Your task to perform on an android device: open the mobile data screen to see how much data has been used Image 0: 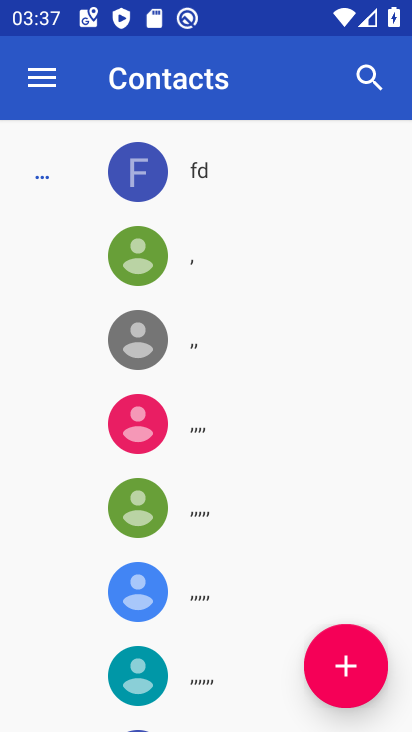
Step 0: press home button
Your task to perform on an android device: open the mobile data screen to see how much data has been used Image 1: 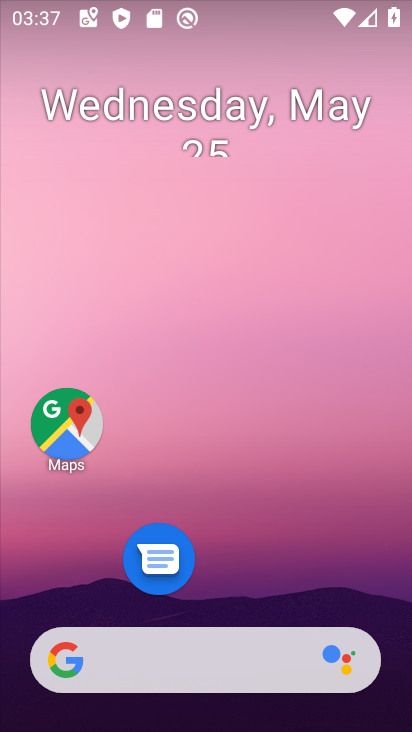
Step 1: drag from (219, 589) to (214, 132)
Your task to perform on an android device: open the mobile data screen to see how much data has been used Image 2: 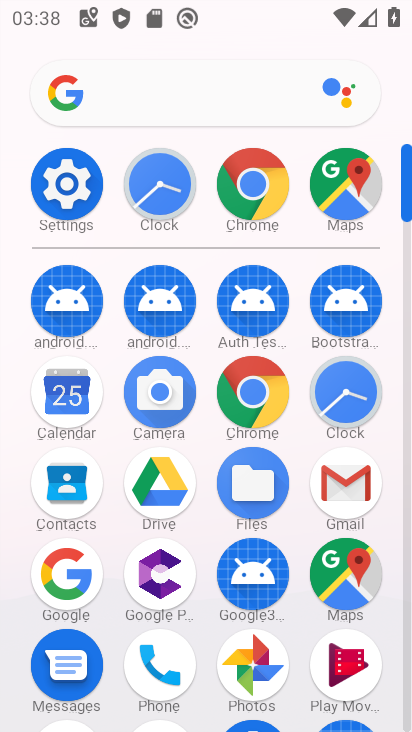
Step 2: click (64, 170)
Your task to perform on an android device: open the mobile data screen to see how much data has been used Image 3: 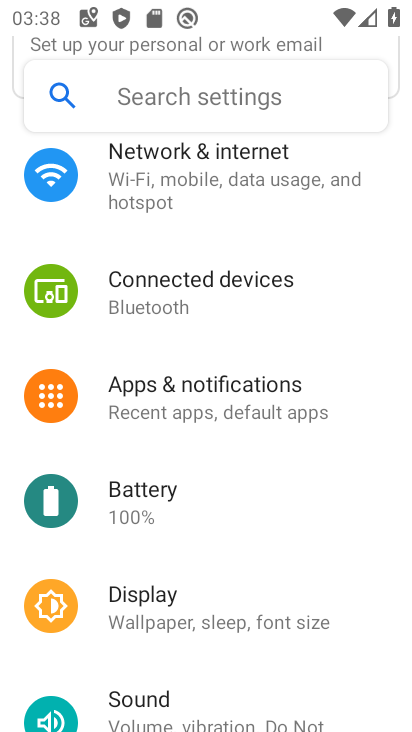
Step 3: click (181, 183)
Your task to perform on an android device: open the mobile data screen to see how much data has been used Image 4: 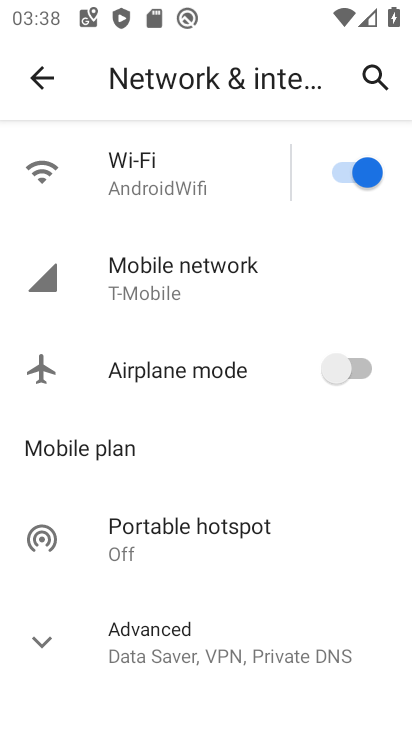
Step 4: click (218, 288)
Your task to perform on an android device: open the mobile data screen to see how much data has been used Image 5: 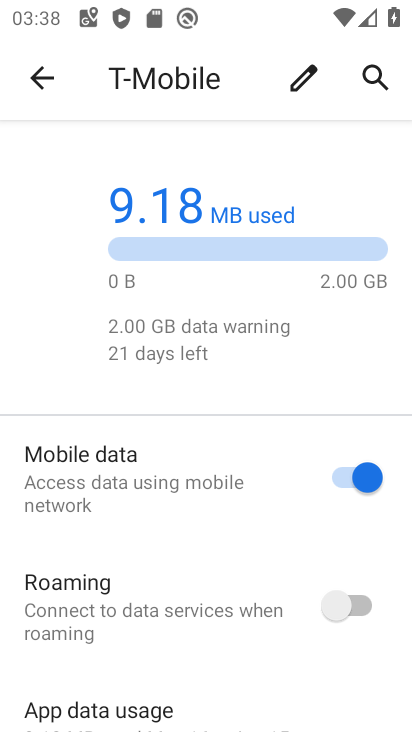
Step 5: click (182, 698)
Your task to perform on an android device: open the mobile data screen to see how much data has been used Image 6: 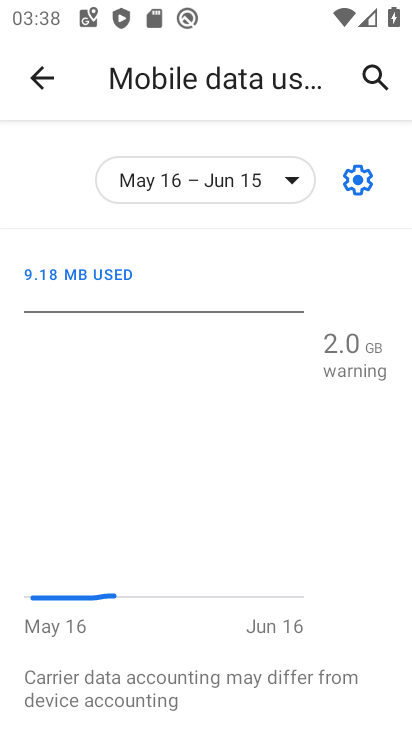
Step 6: task complete